Your task to perform on an android device: Is it going to rain today? Image 0: 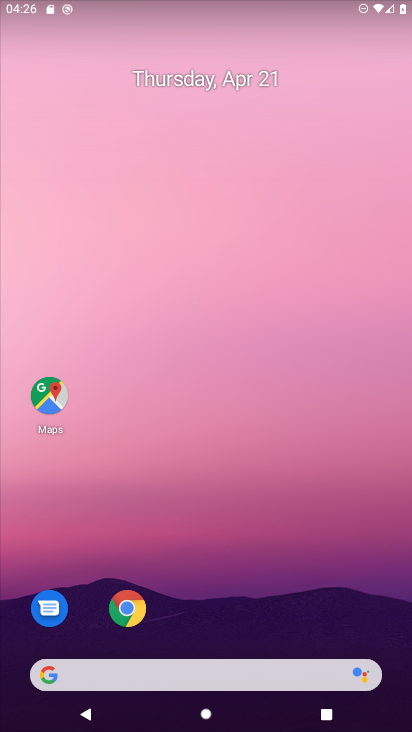
Step 0: drag from (245, 604) to (238, 136)
Your task to perform on an android device: Is it going to rain today? Image 1: 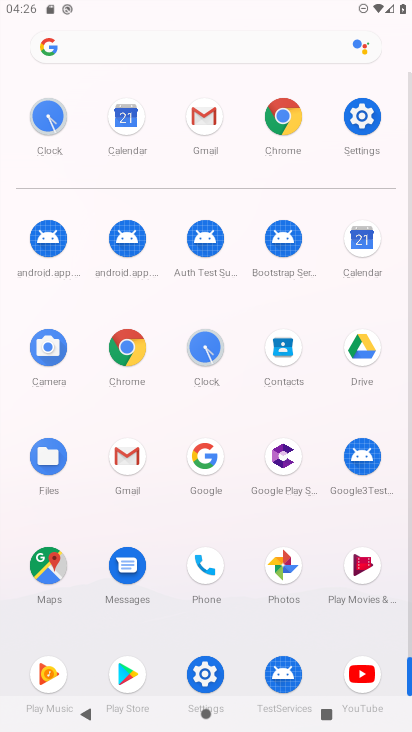
Step 1: click (286, 113)
Your task to perform on an android device: Is it going to rain today? Image 2: 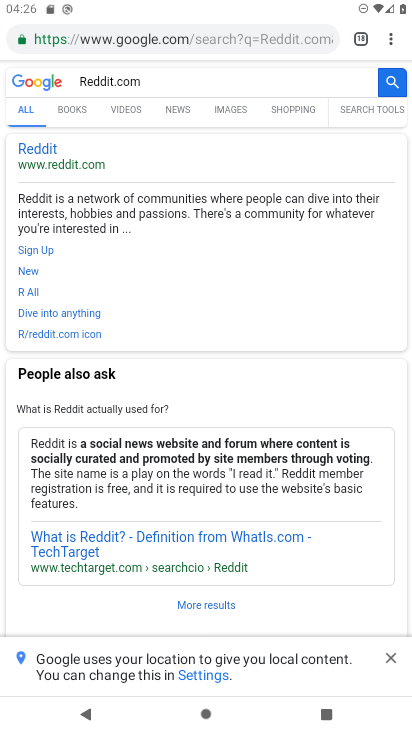
Step 2: click (382, 37)
Your task to perform on an android device: Is it going to rain today? Image 3: 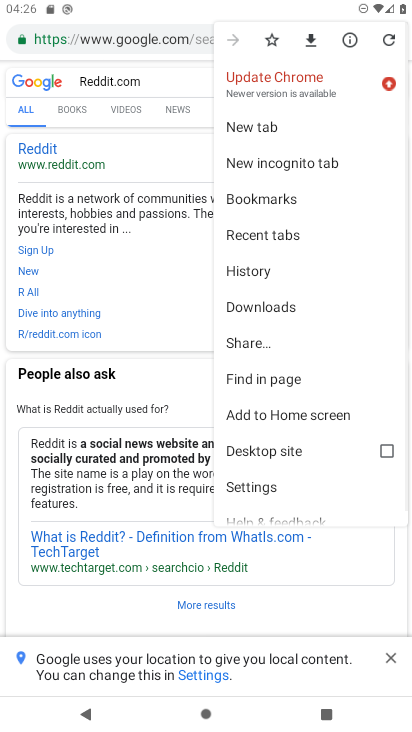
Step 3: click (269, 133)
Your task to perform on an android device: Is it going to rain today? Image 4: 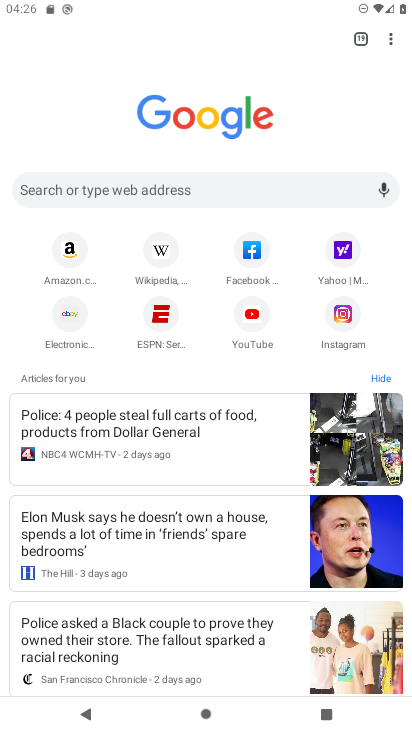
Step 4: click (188, 187)
Your task to perform on an android device: Is it going to rain today? Image 5: 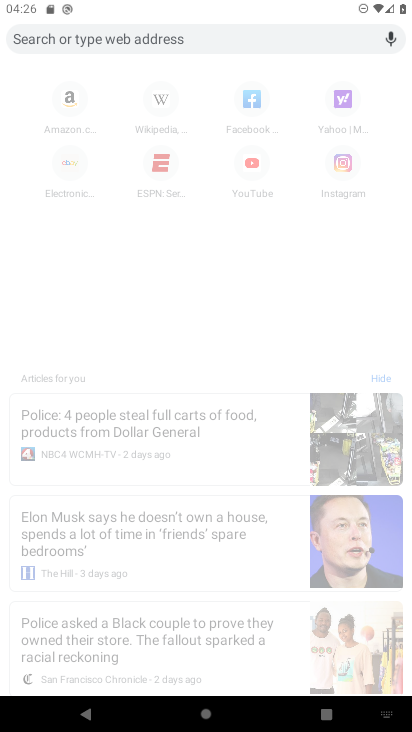
Step 5: type "Is it going to rain today?"
Your task to perform on an android device: Is it going to rain today? Image 6: 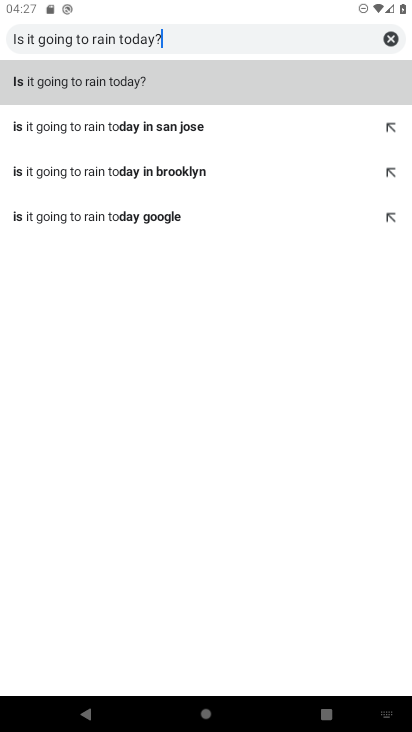
Step 6: click (272, 78)
Your task to perform on an android device: Is it going to rain today? Image 7: 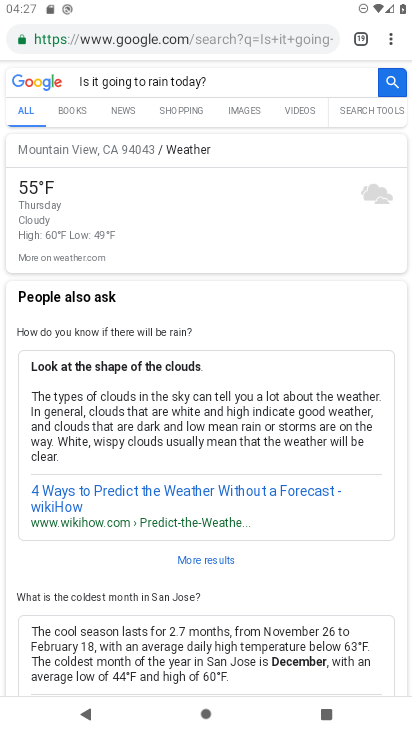
Step 7: task complete